Your task to perform on an android device: Open battery settings Image 0: 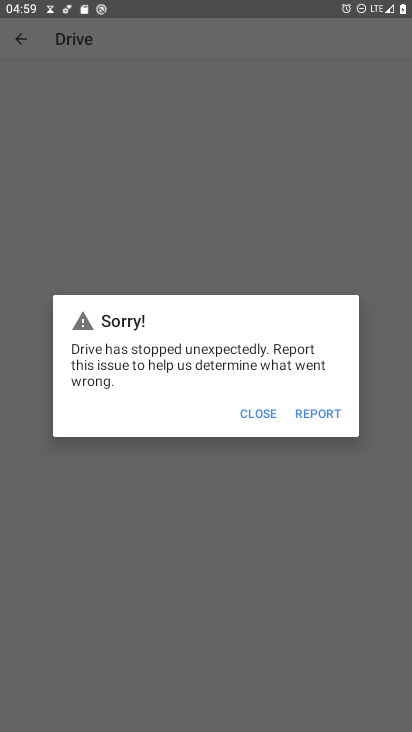
Step 0: press home button
Your task to perform on an android device: Open battery settings Image 1: 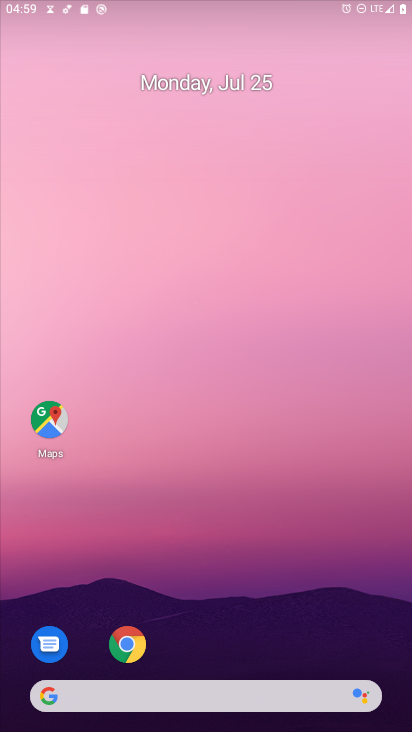
Step 1: drag from (315, 601) to (341, 84)
Your task to perform on an android device: Open battery settings Image 2: 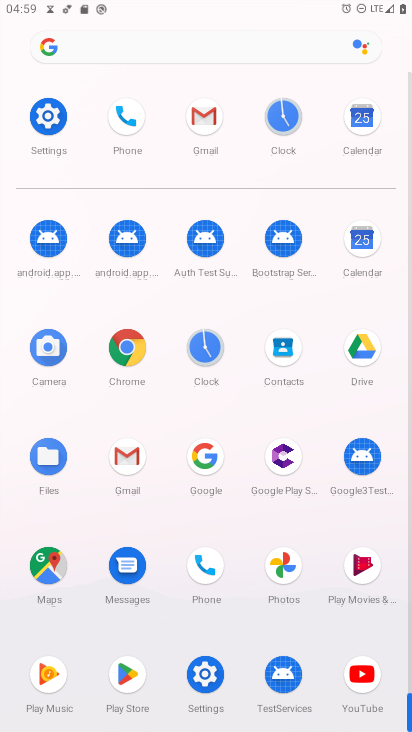
Step 2: click (58, 107)
Your task to perform on an android device: Open battery settings Image 3: 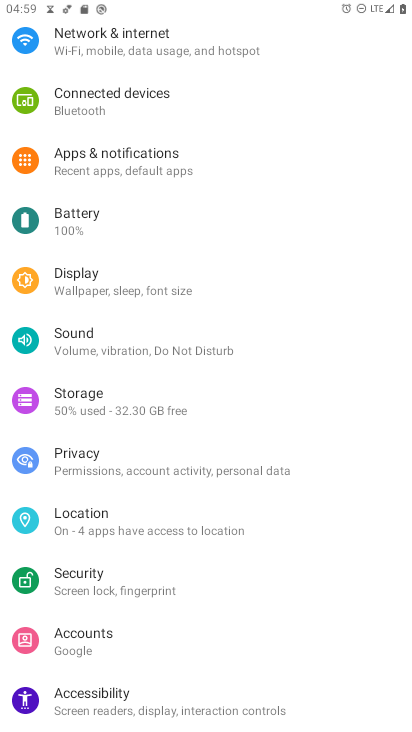
Step 3: click (82, 218)
Your task to perform on an android device: Open battery settings Image 4: 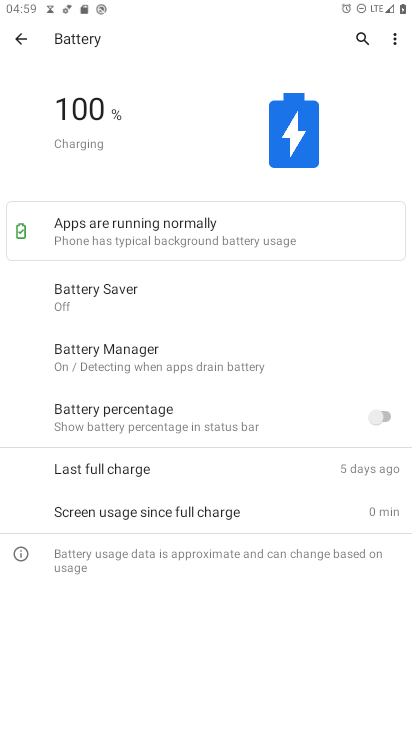
Step 4: task complete